Your task to perform on an android device: change alarm snooze length Image 0: 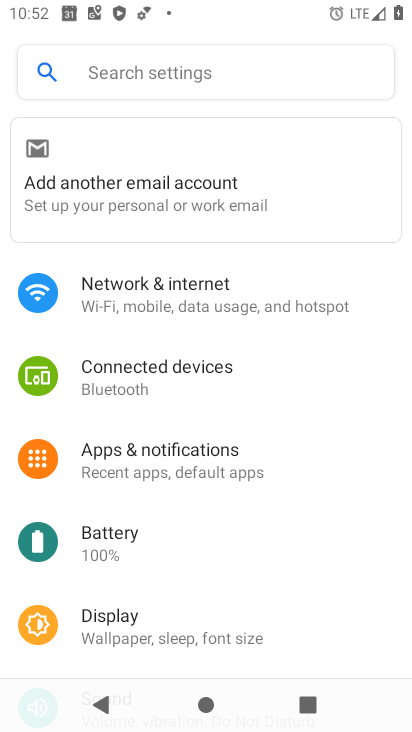
Step 0: press home button
Your task to perform on an android device: change alarm snooze length Image 1: 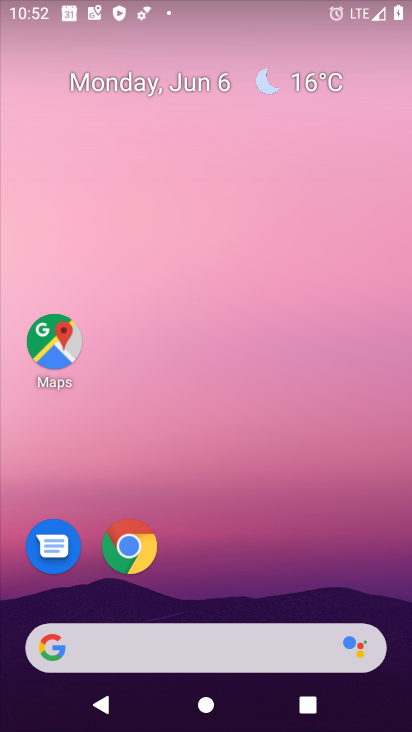
Step 1: drag from (214, 586) to (240, 176)
Your task to perform on an android device: change alarm snooze length Image 2: 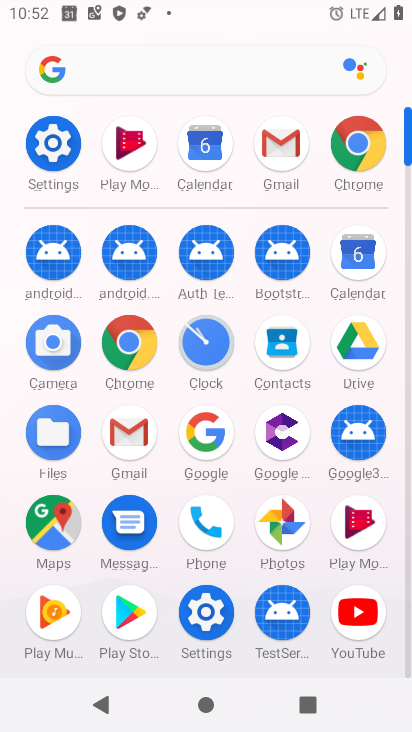
Step 2: click (205, 339)
Your task to perform on an android device: change alarm snooze length Image 3: 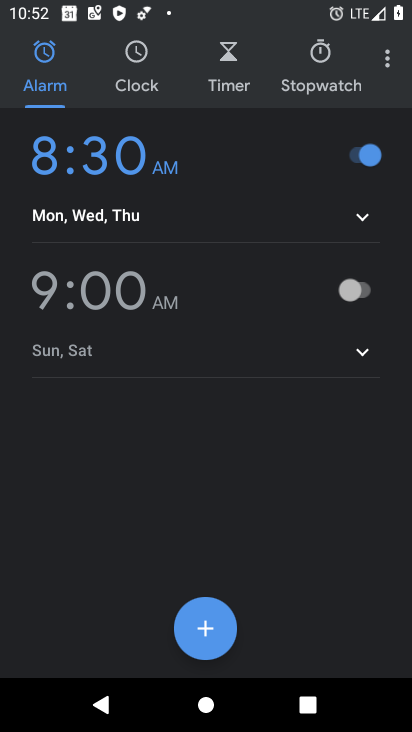
Step 3: click (381, 68)
Your task to perform on an android device: change alarm snooze length Image 4: 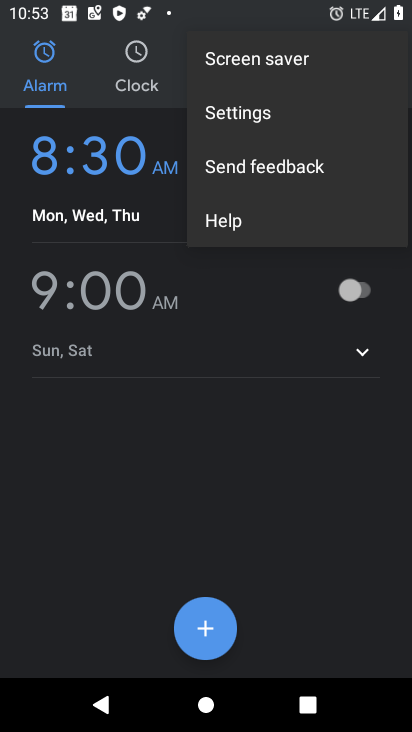
Step 4: click (227, 108)
Your task to perform on an android device: change alarm snooze length Image 5: 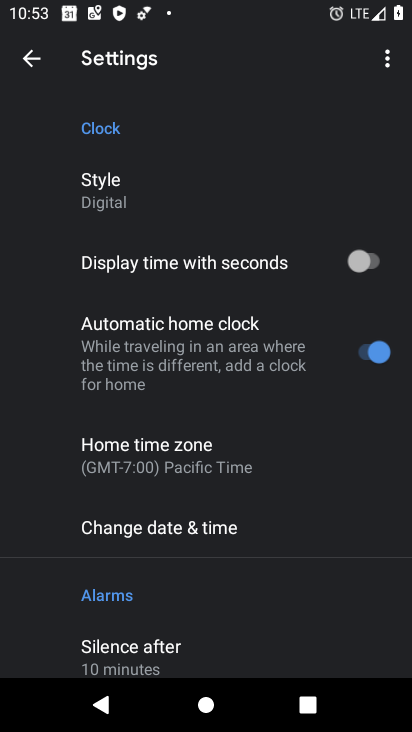
Step 5: drag from (145, 571) to (168, 401)
Your task to perform on an android device: change alarm snooze length Image 6: 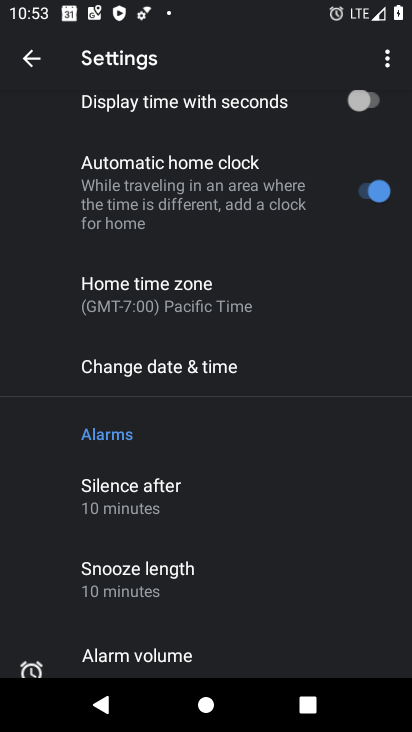
Step 6: click (145, 581)
Your task to perform on an android device: change alarm snooze length Image 7: 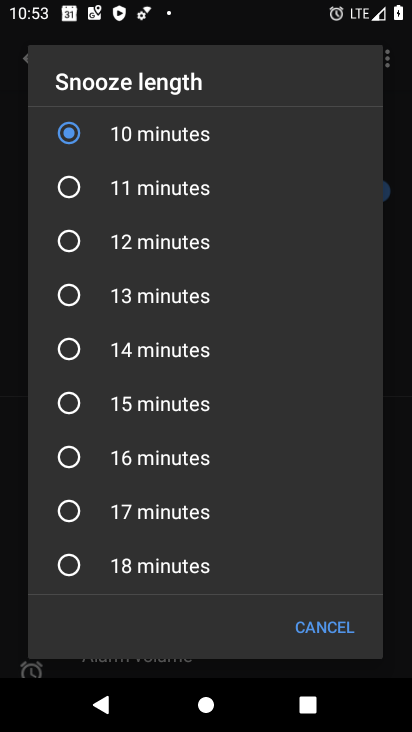
Step 7: click (106, 411)
Your task to perform on an android device: change alarm snooze length Image 8: 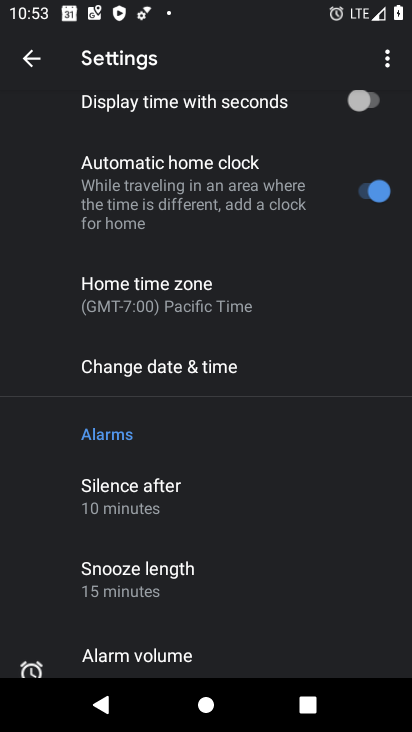
Step 8: task complete